Your task to perform on an android device: find photos in the google photos app Image 0: 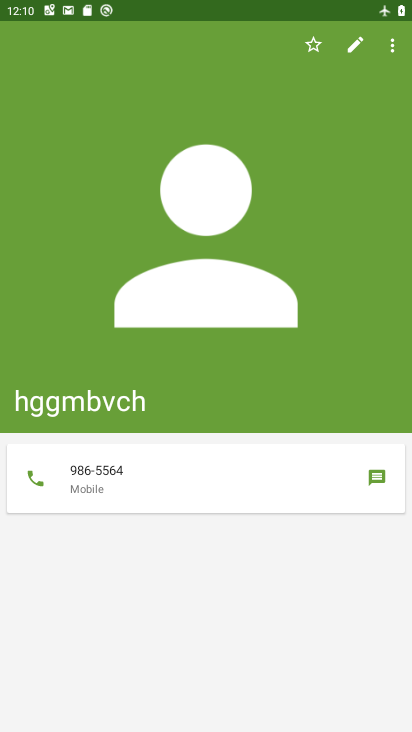
Step 0: press home button
Your task to perform on an android device: find photos in the google photos app Image 1: 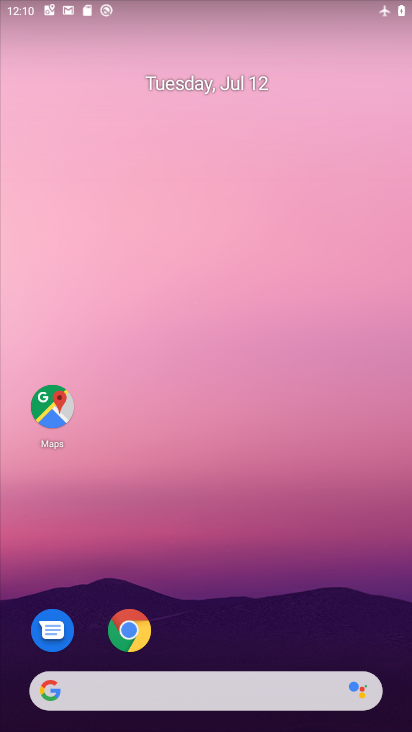
Step 1: drag from (129, 646) to (199, 174)
Your task to perform on an android device: find photos in the google photos app Image 2: 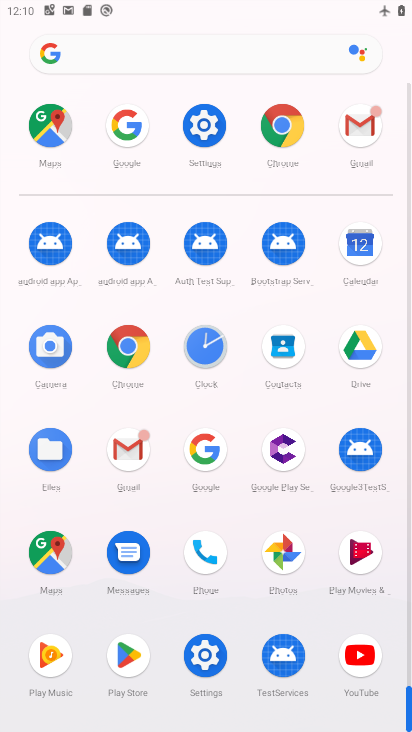
Step 2: click (286, 569)
Your task to perform on an android device: find photos in the google photos app Image 3: 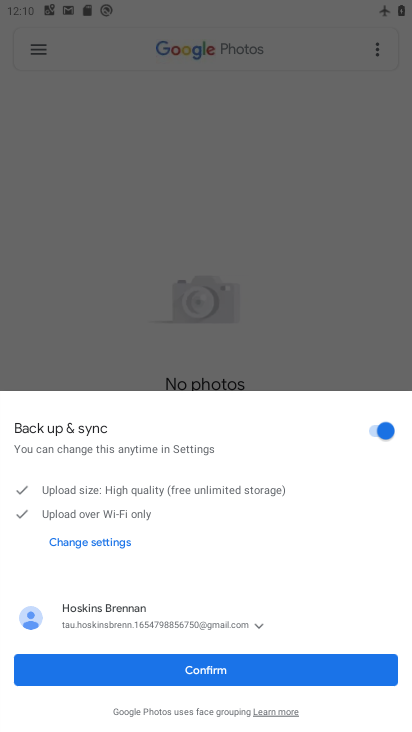
Step 3: click (204, 676)
Your task to perform on an android device: find photos in the google photos app Image 4: 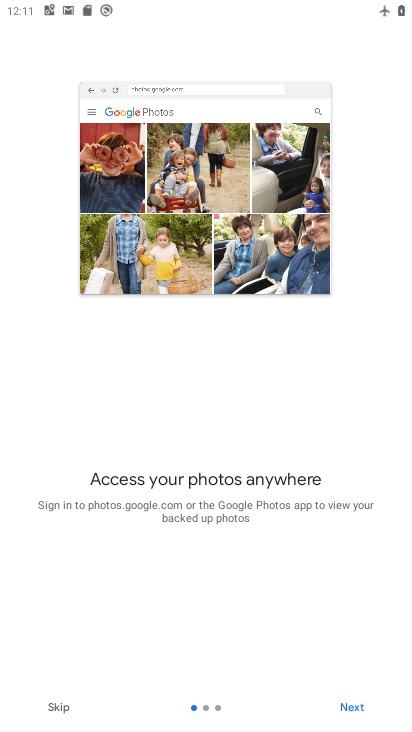
Step 4: click (357, 699)
Your task to perform on an android device: find photos in the google photos app Image 5: 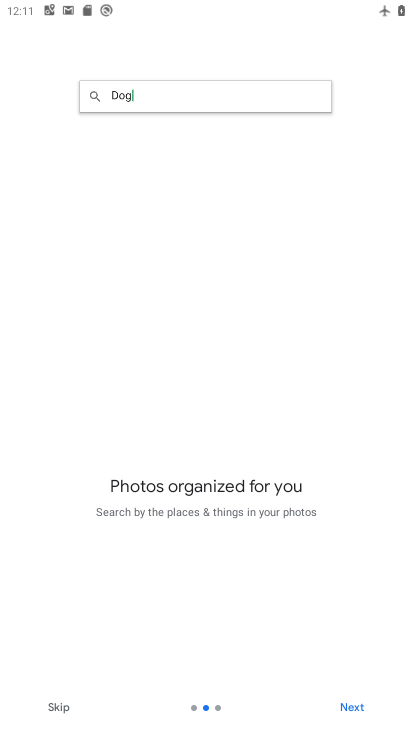
Step 5: click (352, 706)
Your task to perform on an android device: find photos in the google photos app Image 6: 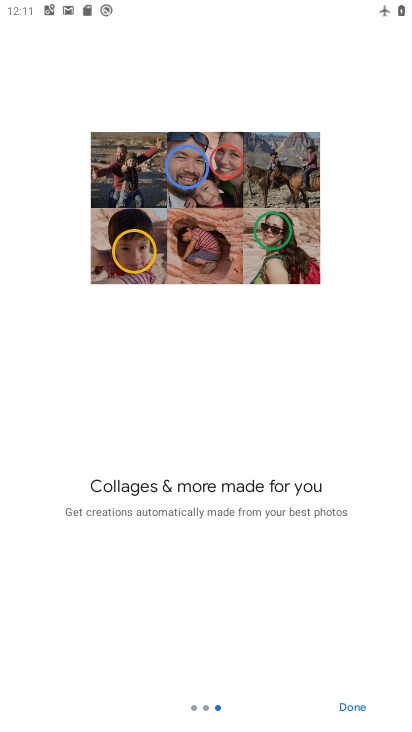
Step 6: click (364, 700)
Your task to perform on an android device: find photos in the google photos app Image 7: 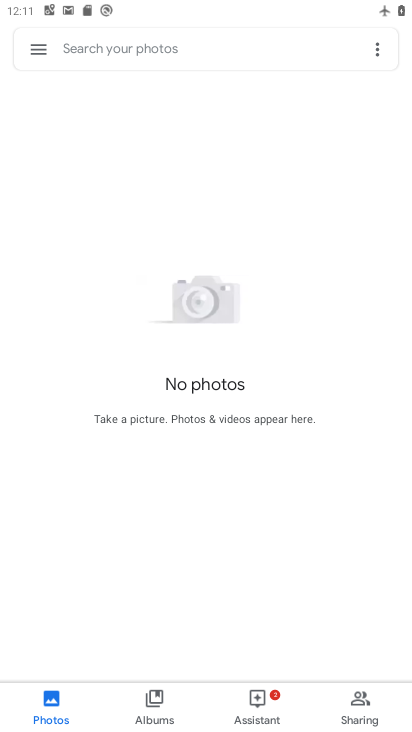
Step 7: task complete